Your task to perform on an android device: toggle translation in the chrome app Image 0: 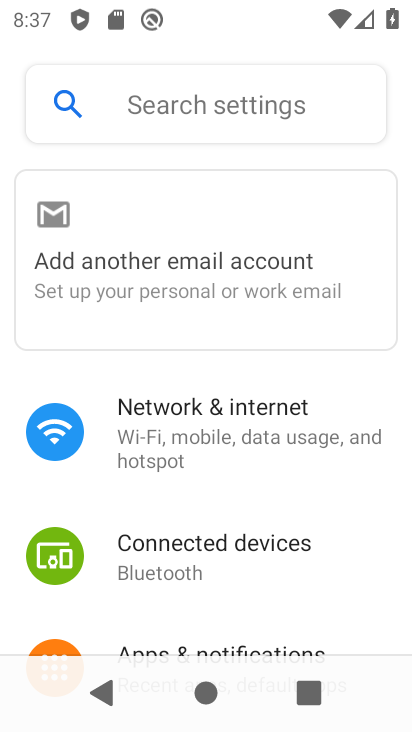
Step 0: press home button
Your task to perform on an android device: toggle translation in the chrome app Image 1: 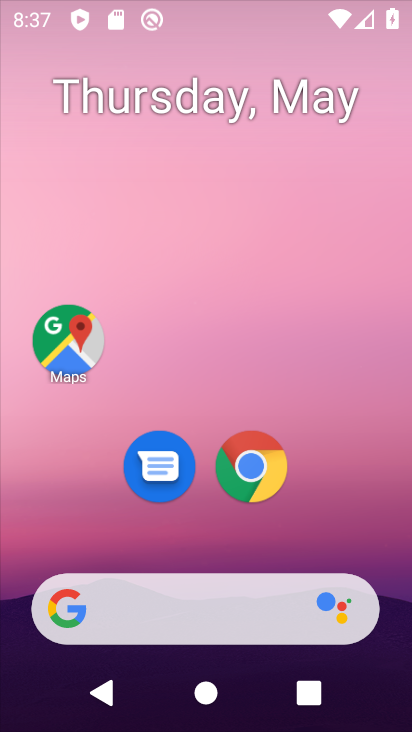
Step 1: drag from (402, 620) to (332, 141)
Your task to perform on an android device: toggle translation in the chrome app Image 2: 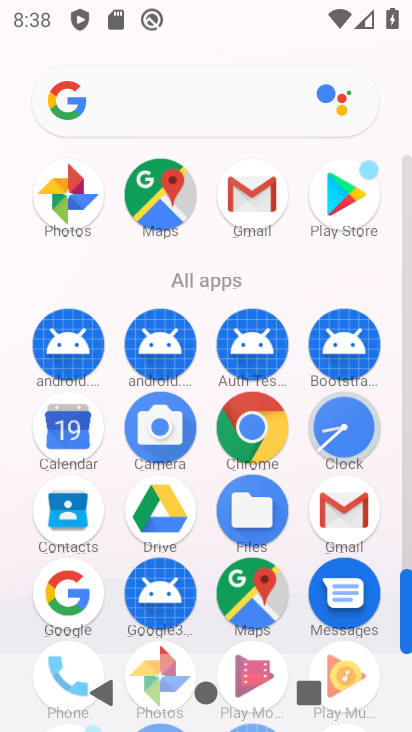
Step 2: click (256, 428)
Your task to perform on an android device: toggle translation in the chrome app Image 3: 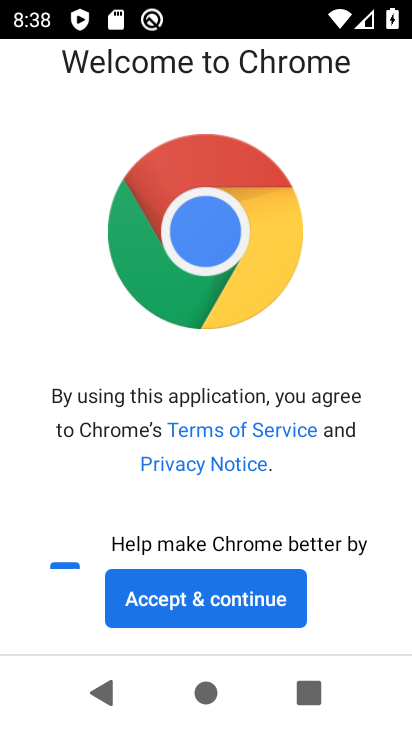
Step 3: click (162, 617)
Your task to perform on an android device: toggle translation in the chrome app Image 4: 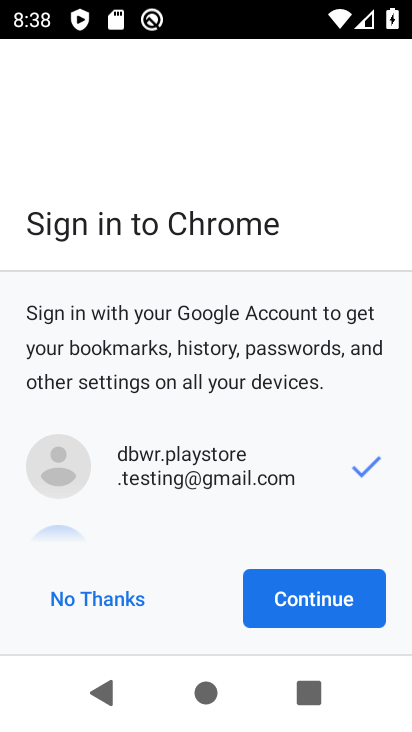
Step 4: click (312, 592)
Your task to perform on an android device: toggle translation in the chrome app Image 5: 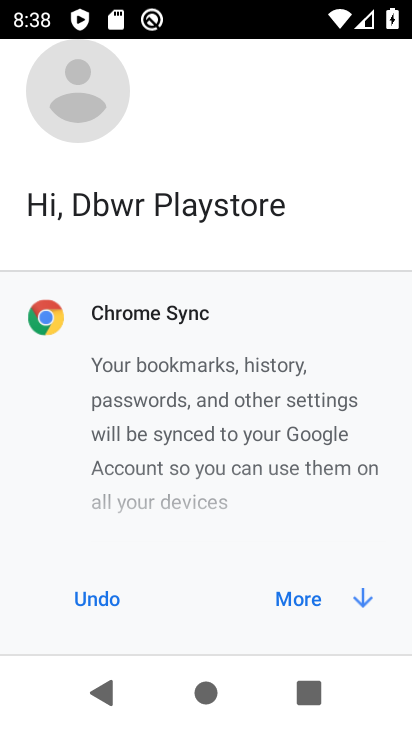
Step 5: click (305, 603)
Your task to perform on an android device: toggle translation in the chrome app Image 6: 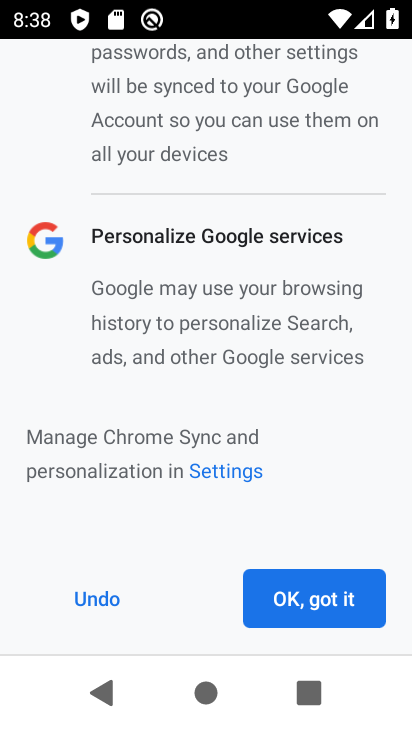
Step 6: click (305, 603)
Your task to perform on an android device: toggle translation in the chrome app Image 7: 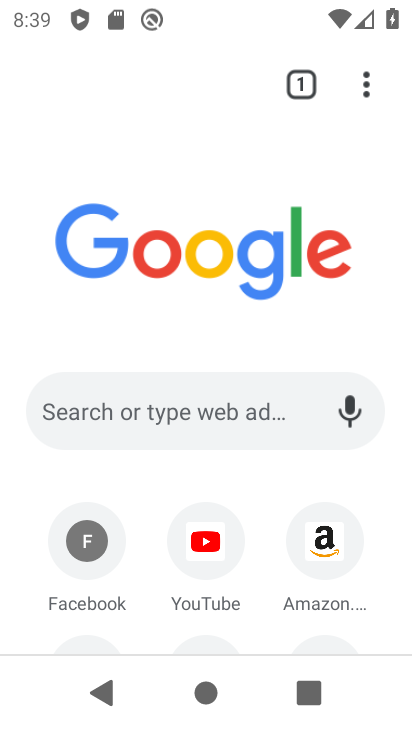
Step 7: click (364, 93)
Your task to perform on an android device: toggle translation in the chrome app Image 8: 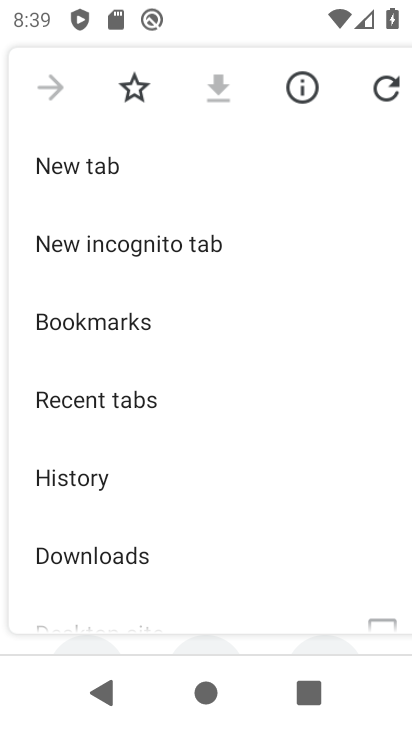
Step 8: drag from (114, 563) to (161, 177)
Your task to perform on an android device: toggle translation in the chrome app Image 9: 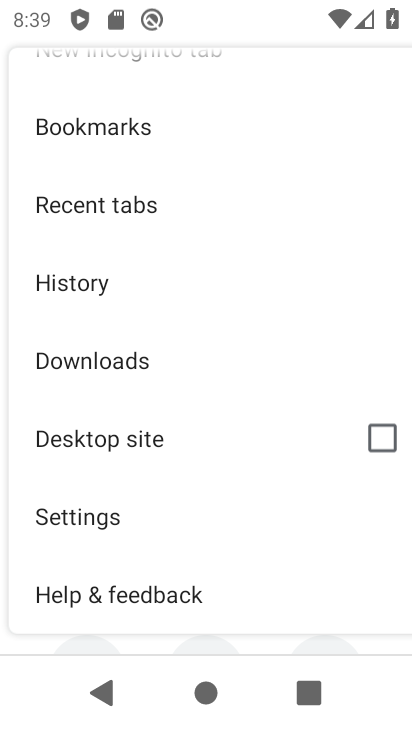
Step 9: click (128, 530)
Your task to perform on an android device: toggle translation in the chrome app Image 10: 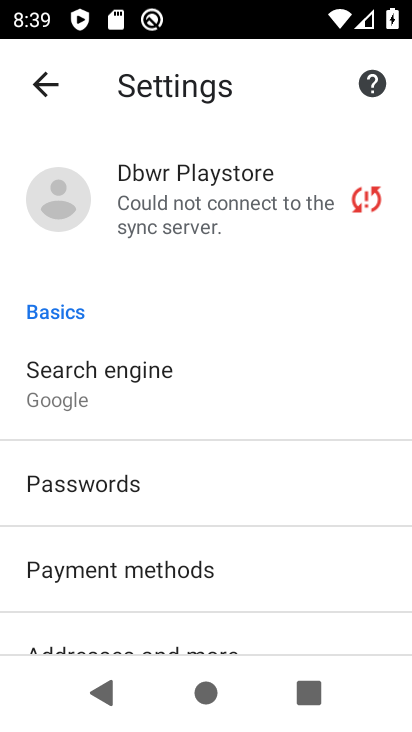
Step 10: drag from (113, 598) to (171, 197)
Your task to perform on an android device: toggle translation in the chrome app Image 11: 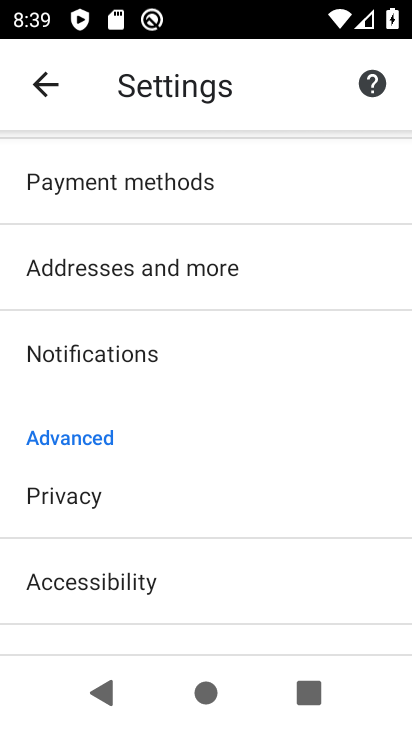
Step 11: drag from (131, 630) to (177, 243)
Your task to perform on an android device: toggle translation in the chrome app Image 12: 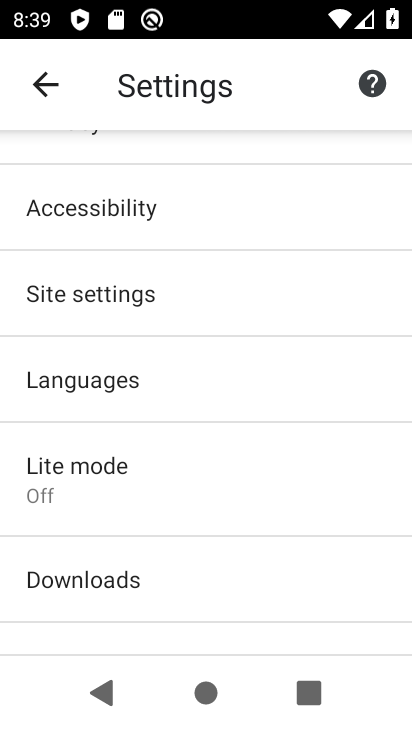
Step 12: click (112, 386)
Your task to perform on an android device: toggle translation in the chrome app Image 13: 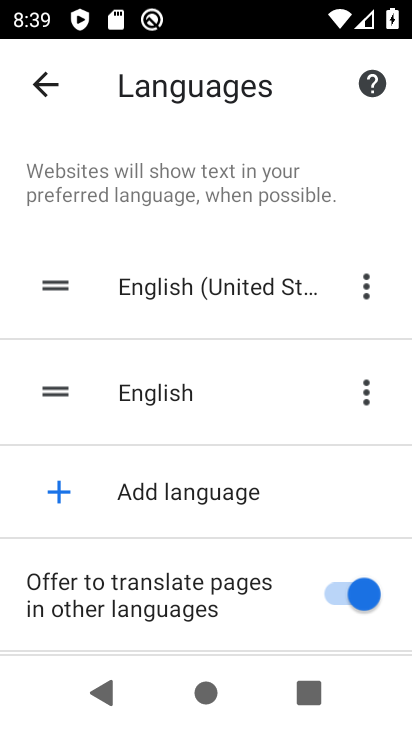
Step 13: click (317, 582)
Your task to perform on an android device: toggle translation in the chrome app Image 14: 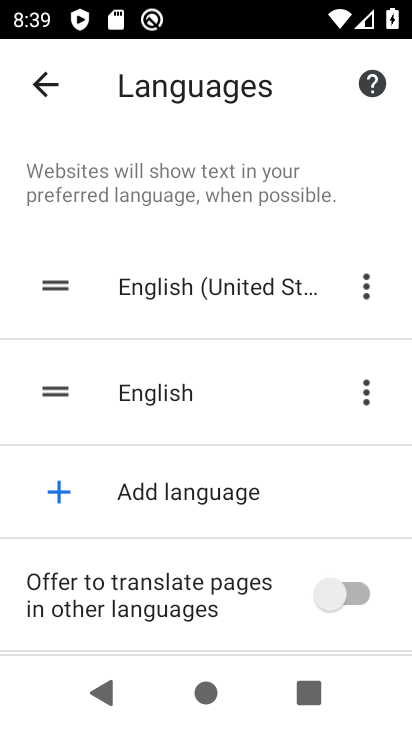
Step 14: task complete